Your task to perform on an android device: read, delete, or share a saved page in the chrome app Image 0: 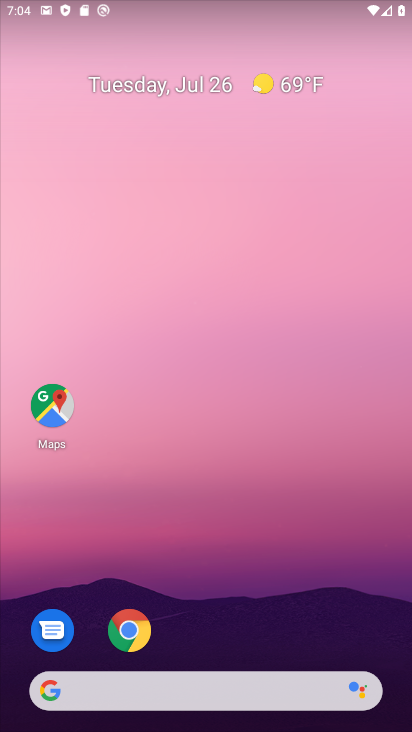
Step 0: drag from (289, 596) to (256, 115)
Your task to perform on an android device: read, delete, or share a saved page in the chrome app Image 1: 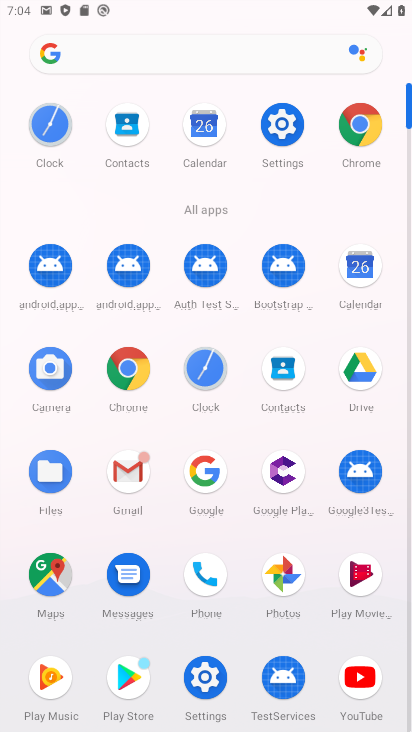
Step 1: click (375, 134)
Your task to perform on an android device: read, delete, or share a saved page in the chrome app Image 2: 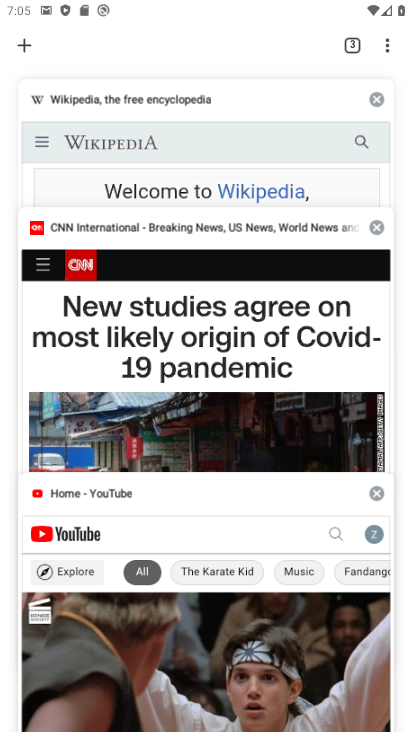
Step 2: click (378, 495)
Your task to perform on an android device: read, delete, or share a saved page in the chrome app Image 3: 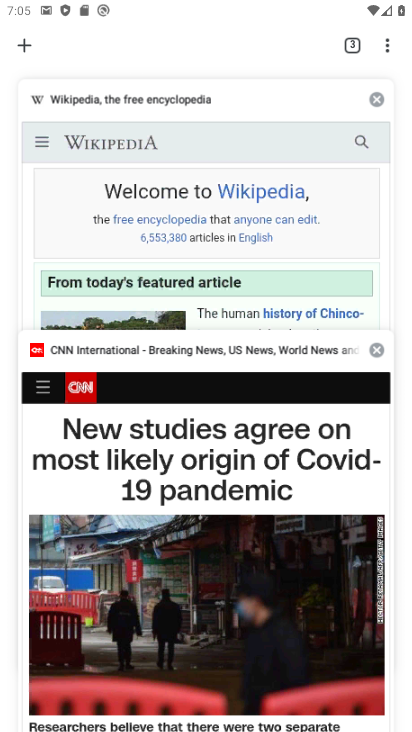
Step 3: task complete